Your task to perform on an android device: turn on javascript in the chrome app Image 0: 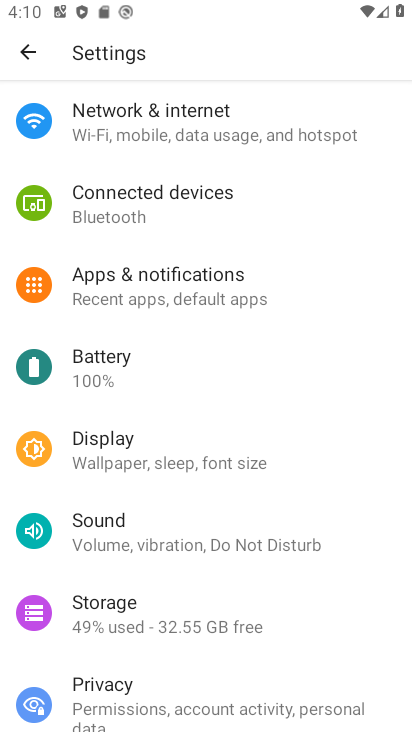
Step 0: press back button
Your task to perform on an android device: turn on javascript in the chrome app Image 1: 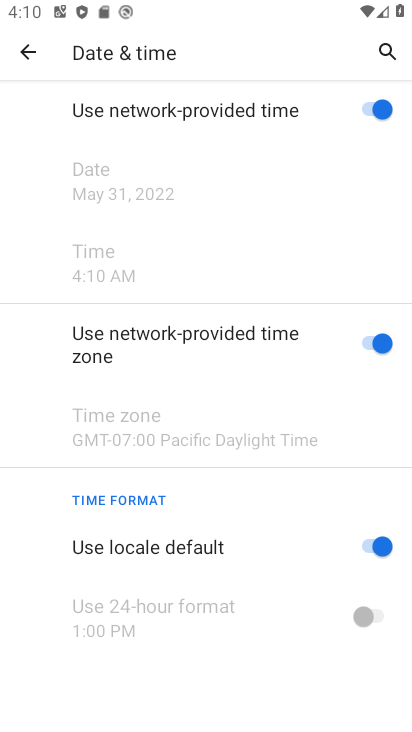
Step 1: click (26, 52)
Your task to perform on an android device: turn on javascript in the chrome app Image 2: 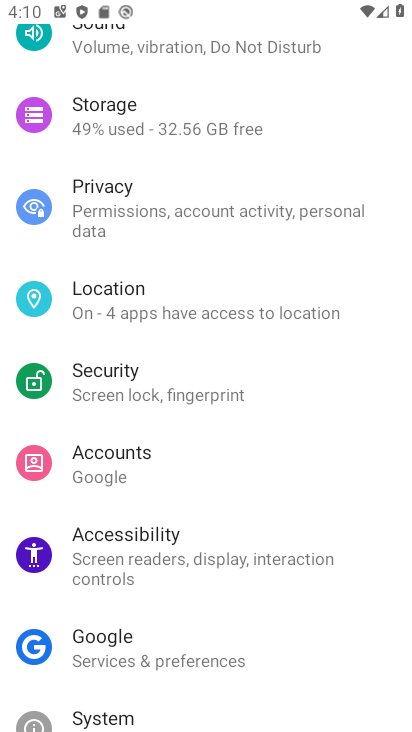
Step 2: drag from (135, 523) to (155, 221)
Your task to perform on an android device: turn on javascript in the chrome app Image 3: 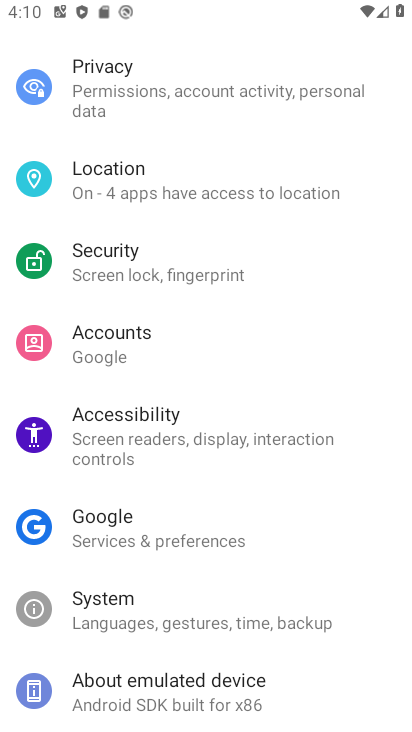
Step 3: drag from (128, 159) to (147, 565)
Your task to perform on an android device: turn on javascript in the chrome app Image 4: 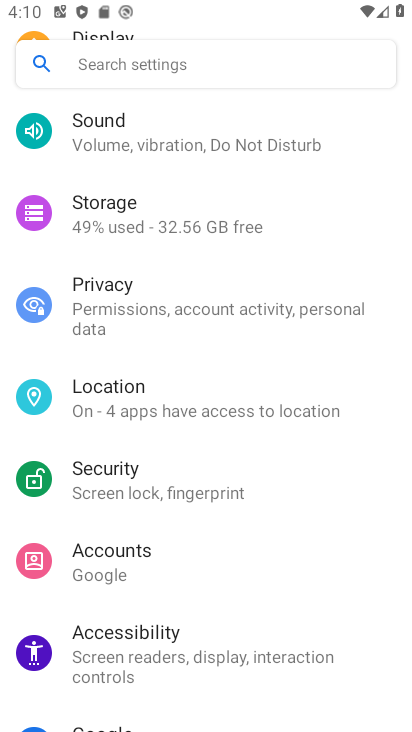
Step 4: drag from (148, 285) to (193, 585)
Your task to perform on an android device: turn on javascript in the chrome app Image 5: 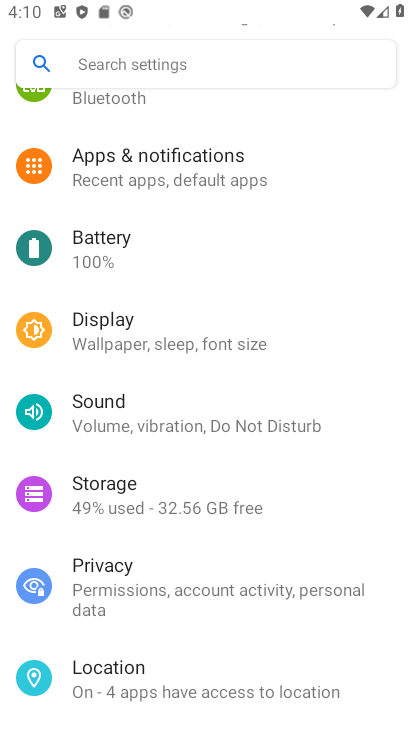
Step 5: drag from (172, 170) to (135, 529)
Your task to perform on an android device: turn on javascript in the chrome app Image 6: 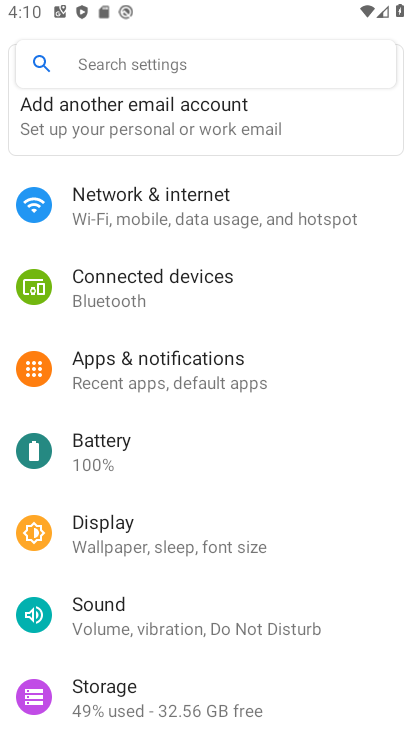
Step 6: drag from (190, 246) to (150, 563)
Your task to perform on an android device: turn on javascript in the chrome app Image 7: 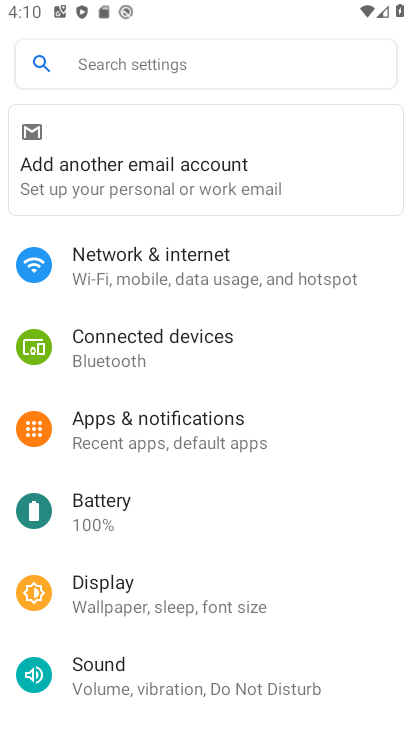
Step 7: drag from (165, 633) to (155, 328)
Your task to perform on an android device: turn on javascript in the chrome app Image 8: 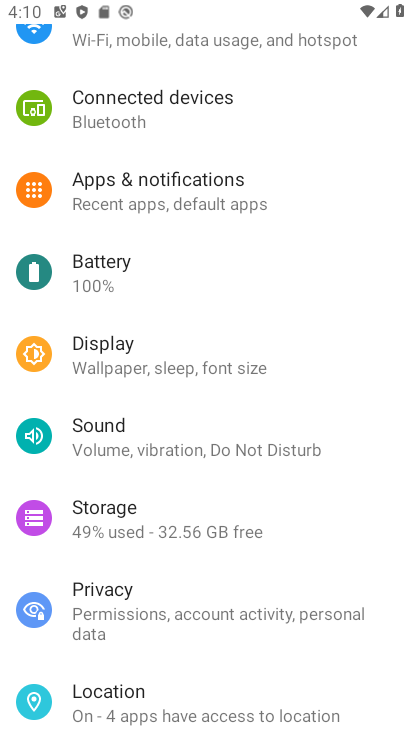
Step 8: drag from (117, 558) to (119, 352)
Your task to perform on an android device: turn on javascript in the chrome app Image 9: 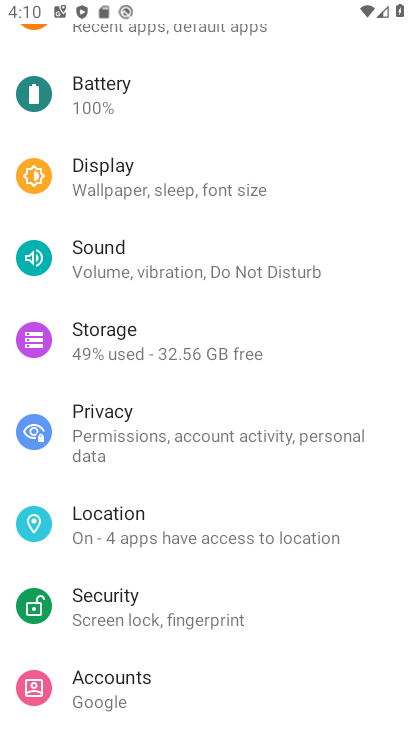
Step 9: drag from (179, 472) to (180, 279)
Your task to perform on an android device: turn on javascript in the chrome app Image 10: 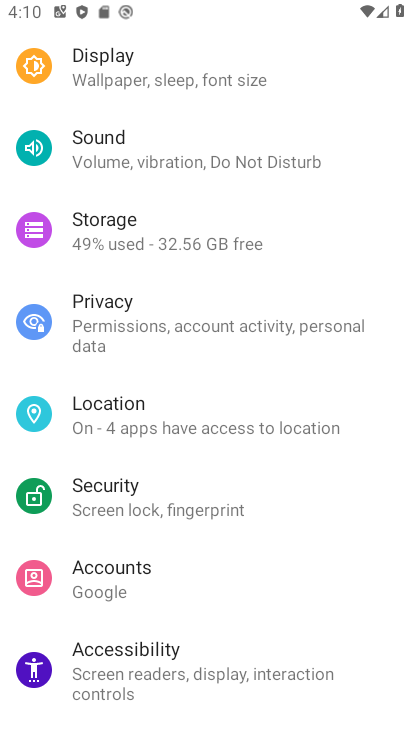
Step 10: drag from (218, 447) to (206, 275)
Your task to perform on an android device: turn on javascript in the chrome app Image 11: 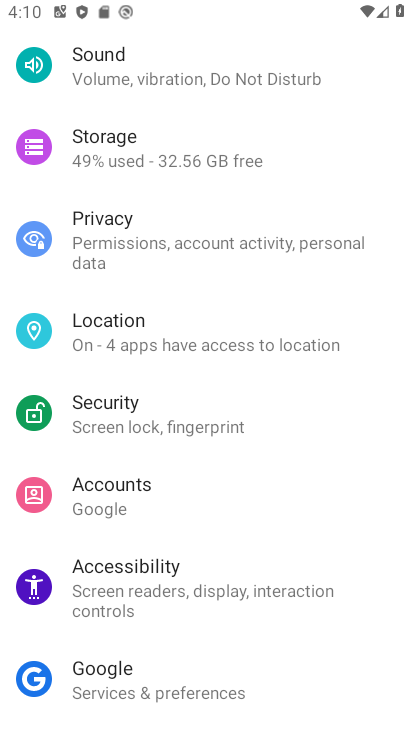
Step 11: drag from (245, 460) to (256, 267)
Your task to perform on an android device: turn on javascript in the chrome app Image 12: 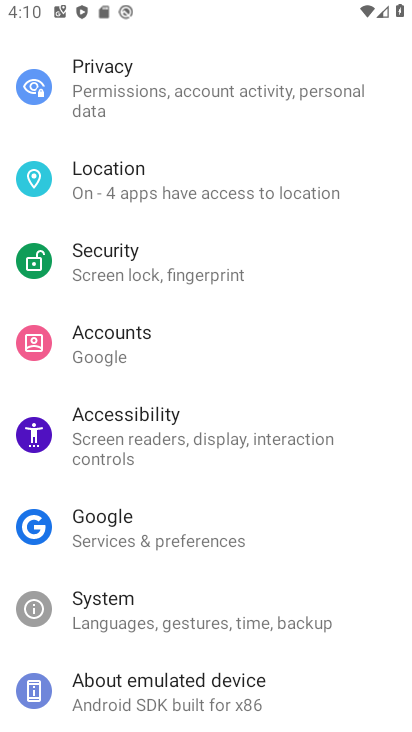
Step 12: drag from (260, 474) to (258, 250)
Your task to perform on an android device: turn on javascript in the chrome app Image 13: 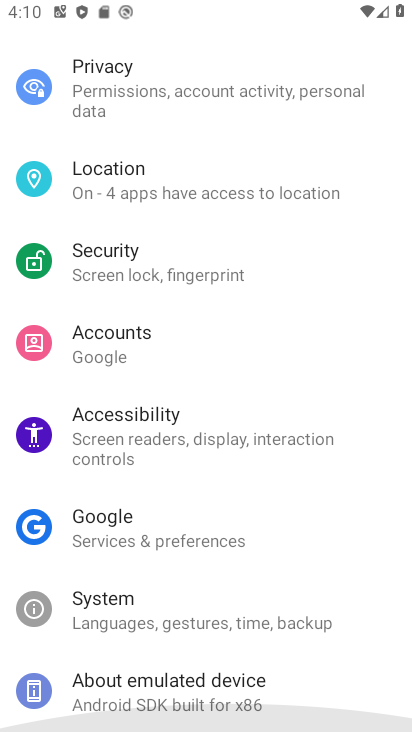
Step 13: drag from (266, 467) to (242, 290)
Your task to perform on an android device: turn on javascript in the chrome app Image 14: 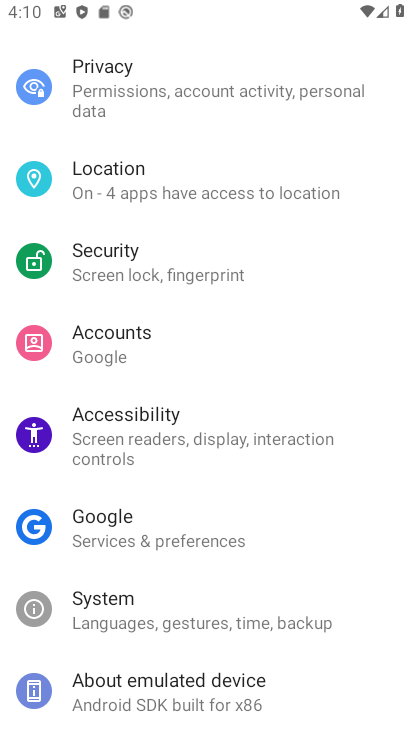
Step 14: press home button
Your task to perform on an android device: turn on javascript in the chrome app Image 15: 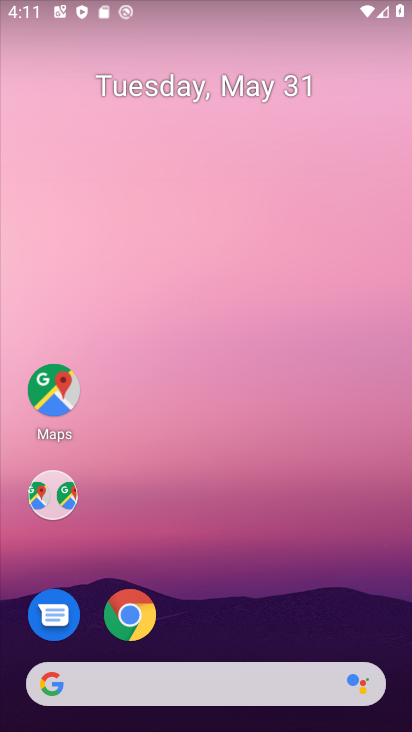
Step 15: drag from (292, 691) to (237, 179)
Your task to perform on an android device: turn on javascript in the chrome app Image 16: 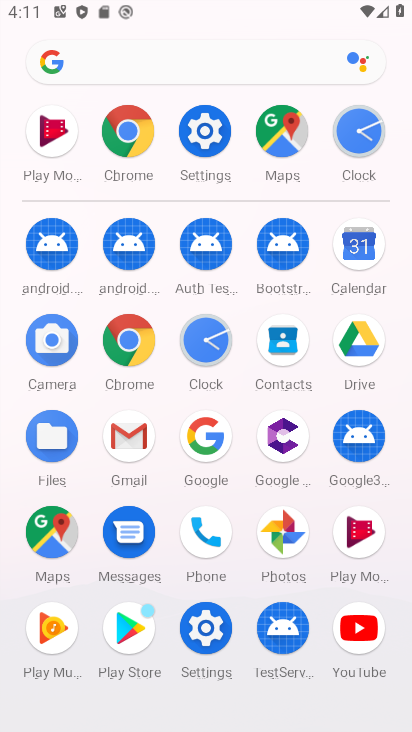
Step 16: click (128, 139)
Your task to perform on an android device: turn on javascript in the chrome app Image 17: 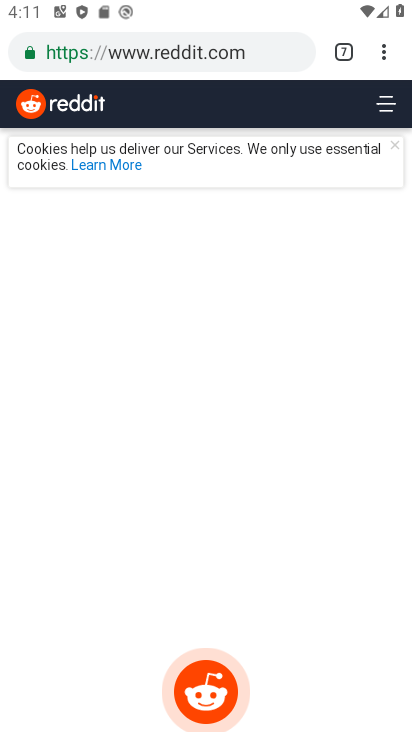
Step 17: drag from (380, 57) to (188, 621)
Your task to perform on an android device: turn on javascript in the chrome app Image 18: 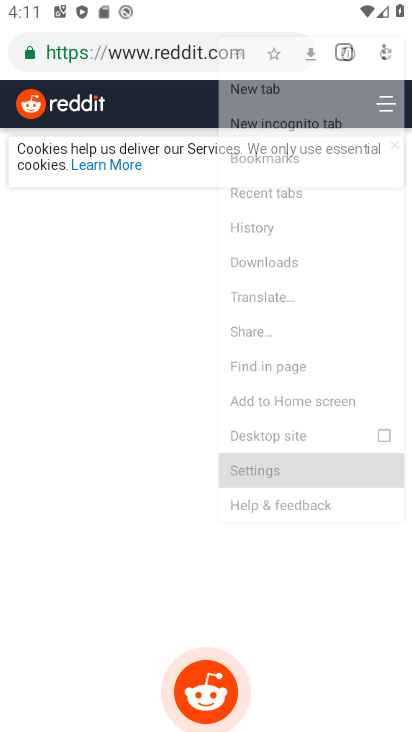
Step 18: click (194, 620)
Your task to perform on an android device: turn on javascript in the chrome app Image 19: 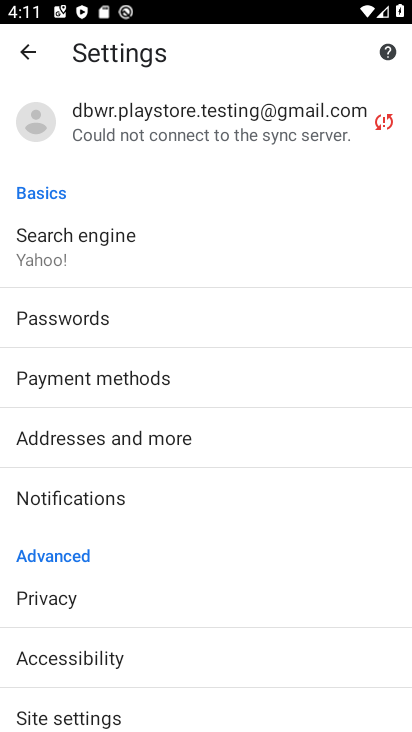
Step 19: drag from (48, 652) to (50, 321)
Your task to perform on an android device: turn on javascript in the chrome app Image 20: 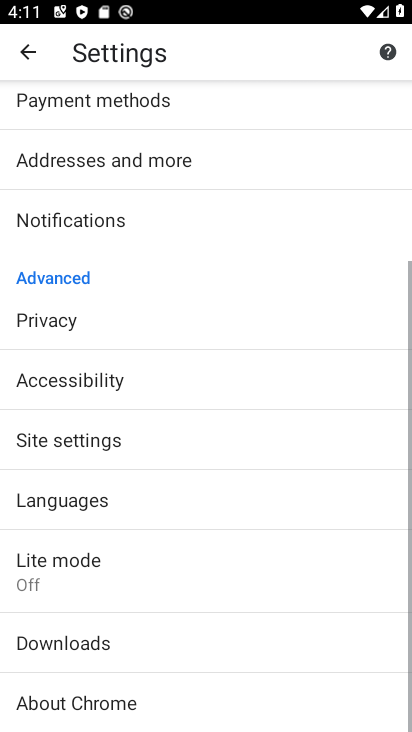
Step 20: drag from (86, 554) to (68, 276)
Your task to perform on an android device: turn on javascript in the chrome app Image 21: 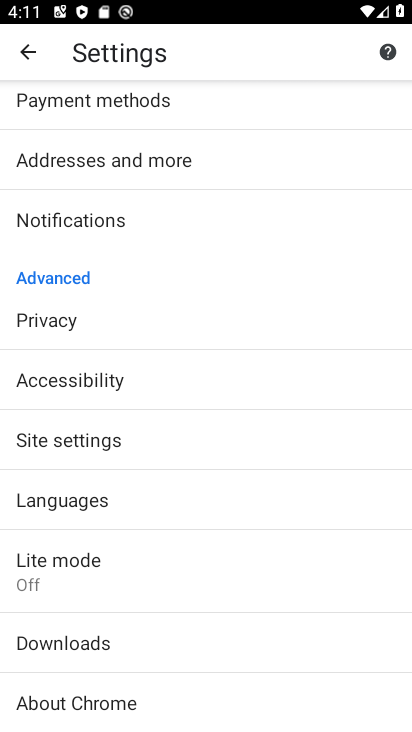
Step 21: click (53, 436)
Your task to perform on an android device: turn on javascript in the chrome app Image 22: 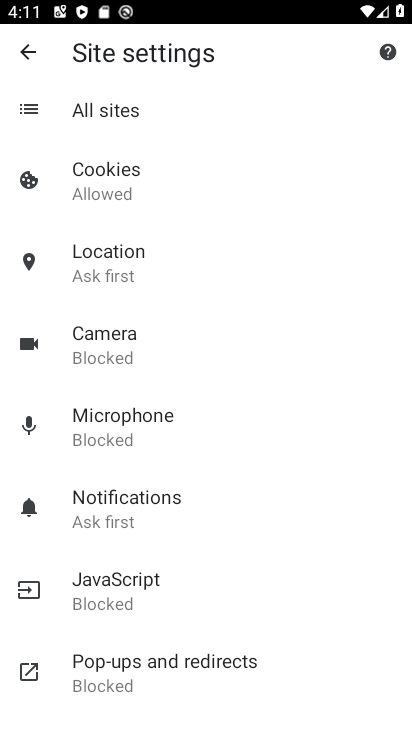
Step 22: click (99, 589)
Your task to perform on an android device: turn on javascript in the chrome app Image 23: 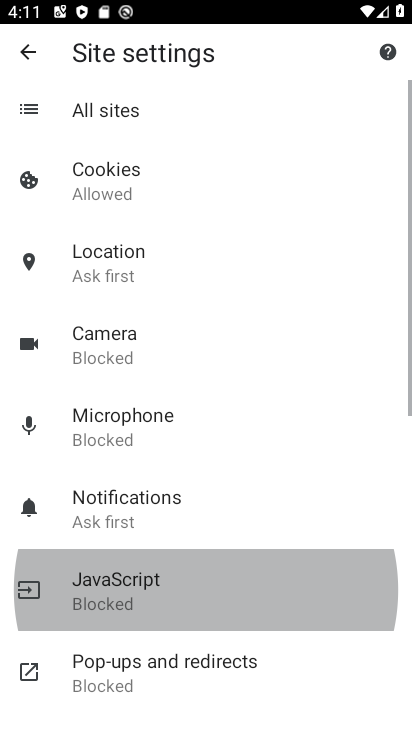
Step 23: click (99, 589)
Your task to perform on an android device: turn on javascript in the chrome app Image 24: 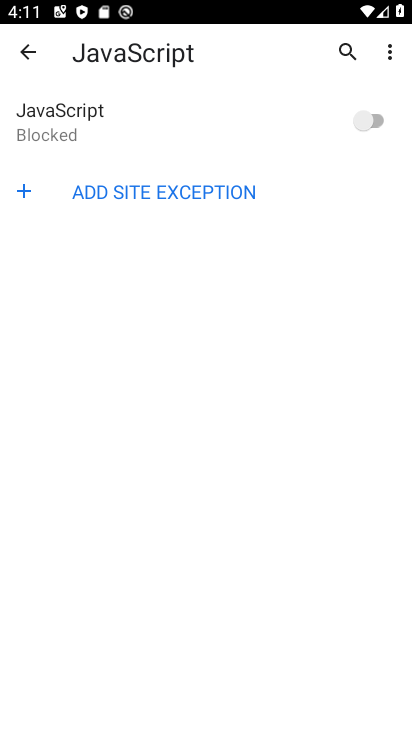
Step 24: click (358, 118)
Your task to perform on an android device: turn on javascript in the chrome app Image 25: 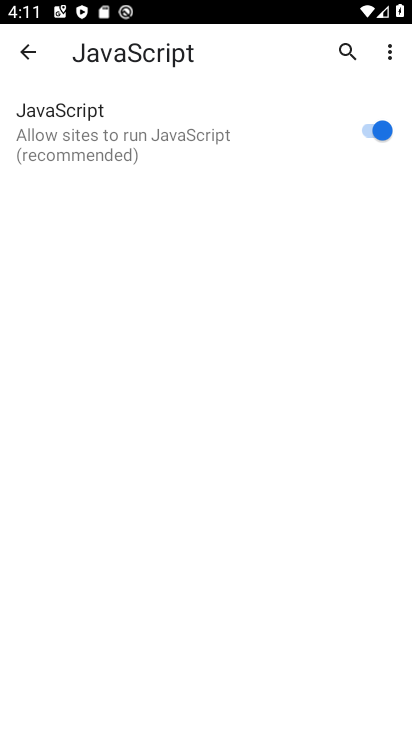
Step 25: task complete